Your task to perform on an android device: Go to Amazon Image 0: 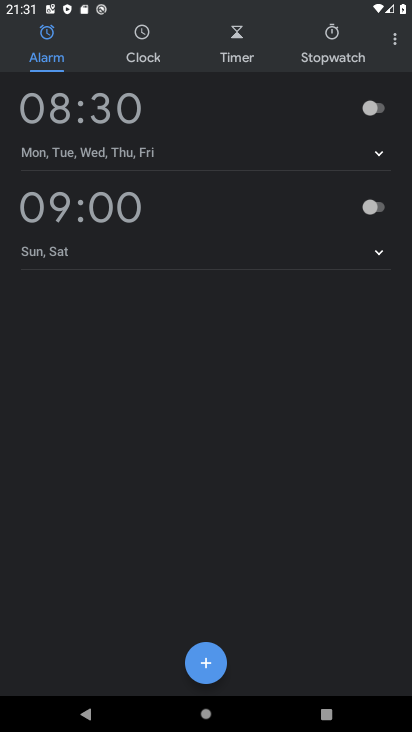
Step 0: press home button
Your task to perform on an android device: Go to Amazon Image 1: 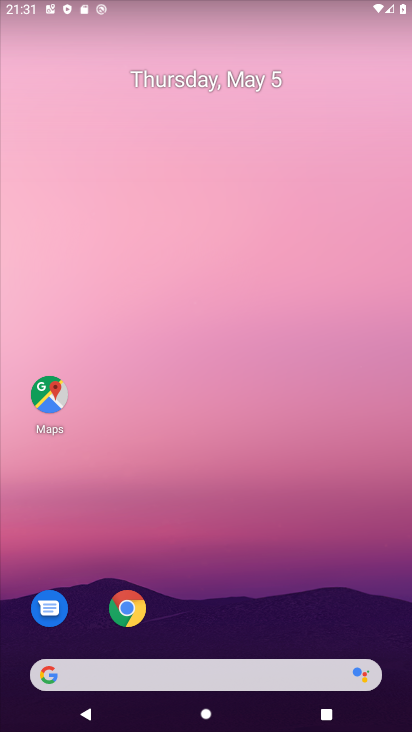
Step 1: drag from (284, 684) to (256, 1)
Your task to perform on an android device: Go to Amazon Image 2: 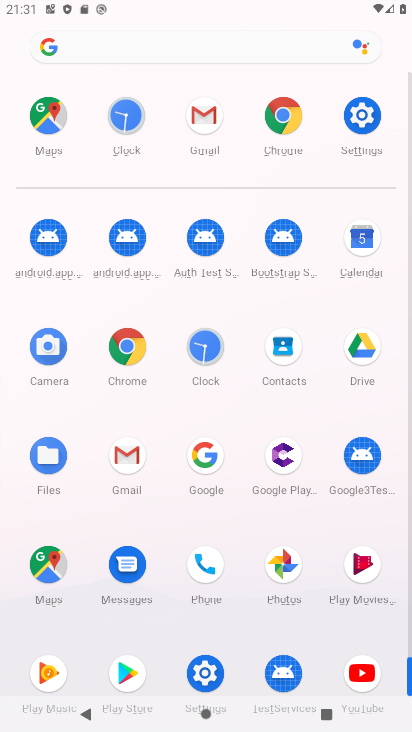
Step 2: click (121, 348)
Your task to perform on an android device: Go to Amazon Image 3: 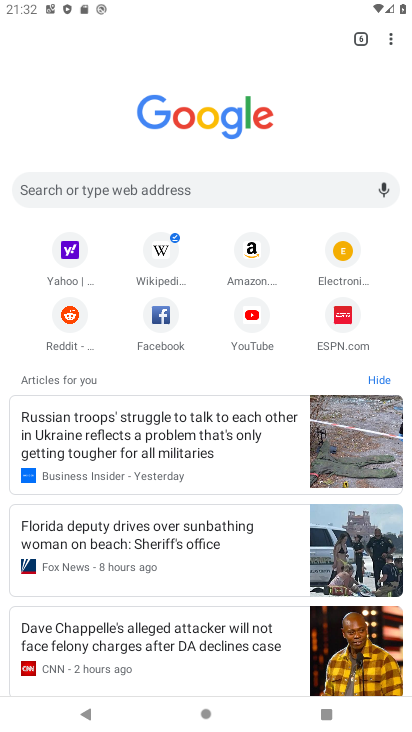
Step 3: click (254, 248)
Your task to perform on an android device: Go to Amazon Image 4: 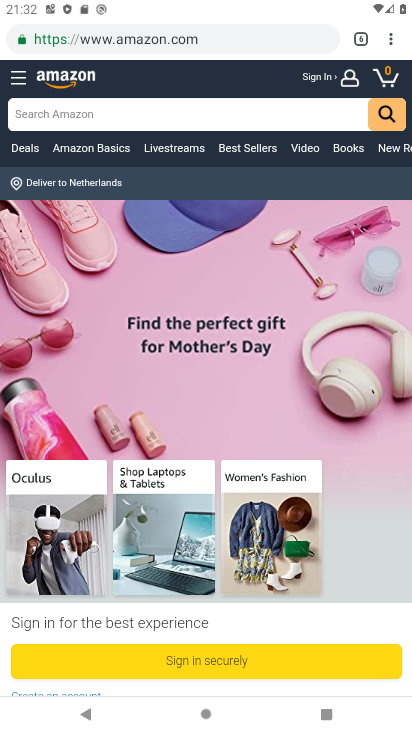
Step 4: task complete